Your task to perform on an android device: snooze an email in the gmail app Image 0: 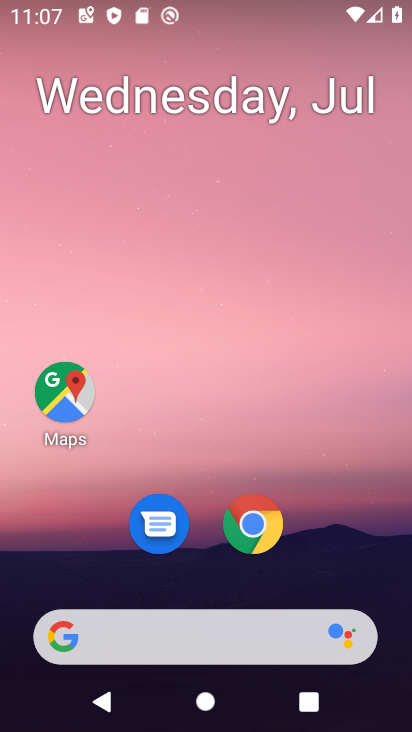
Step 0: press home button
Your task to perform on an android device: snooze an email in the gmail app Image 1: 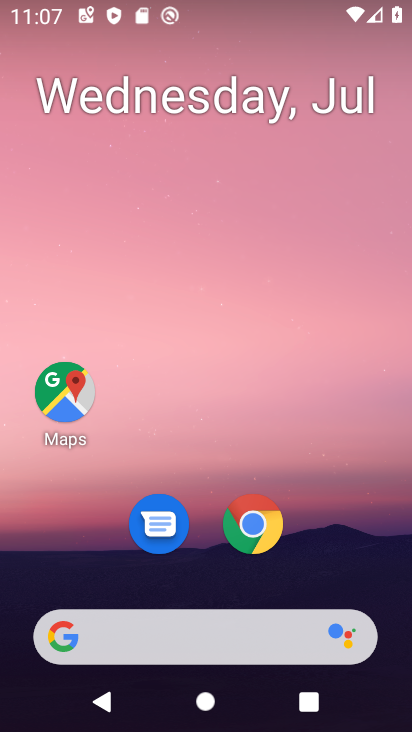
Step 1: drag from (241, 570) to (328, 136)
Your task to perform on an android device: snooze an email in the gmail app Image 2: 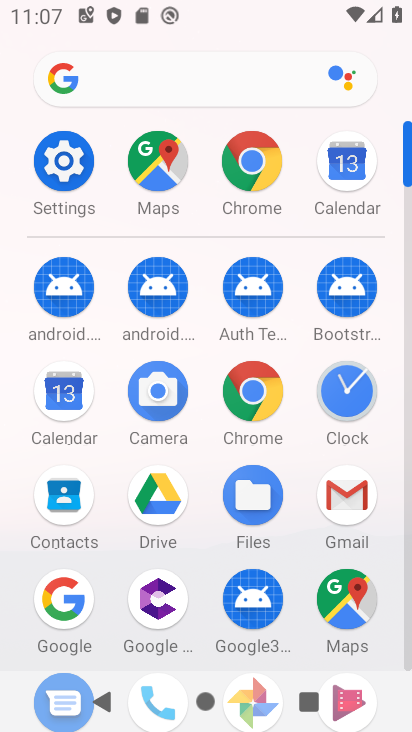
Step 2: click (347, 496)
Your task to perform on an android device: snooze an email in the gmail app Image 3: 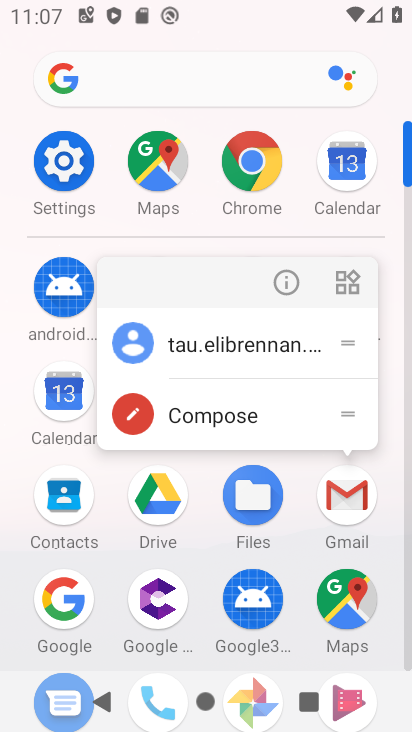
Step 3: click (347, 497)
Your task to perform on an android device: snooze an email in the gmail app Image 4: 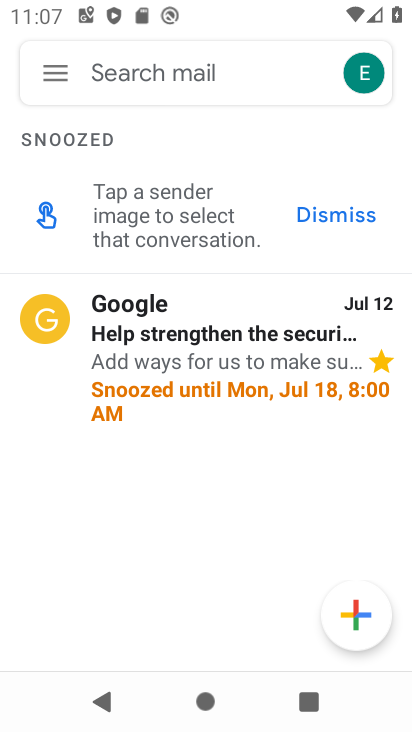
Step 4: click (49, 70)
Your task to perform on an android device: snooze an email in the gmail app Image 5: 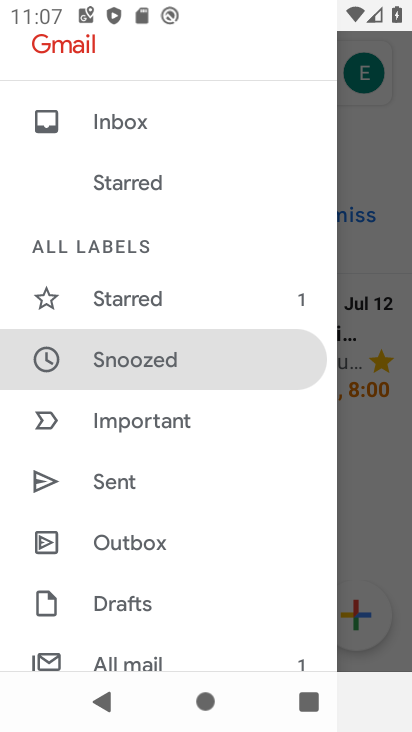
Step 5: click (158, 656)
Your task to perform on an android device: snooze an email in the gmail app Image 6: 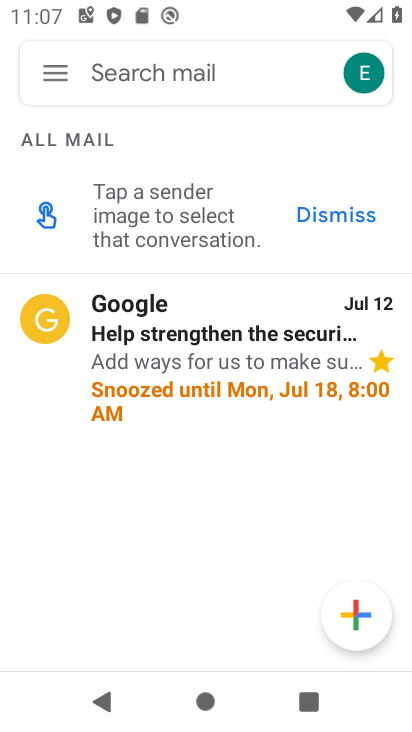
Step 6: click (49, 319)
Your task to perform on an android device: snooze an email in the gmail app Image 7: 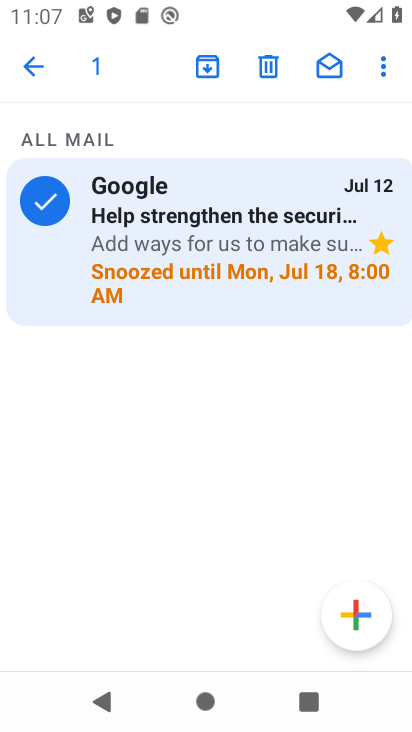
Step 7: click (384, 68)
Your task to perform on an android device: snooze an email in the gmail app Image 8: 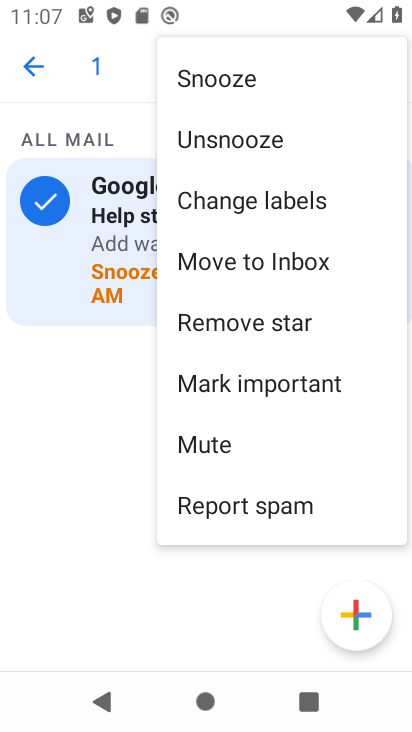
Step 8: click (238, 79)
Your task to perform on an android device: snooze an email in the gmail app Image 9: 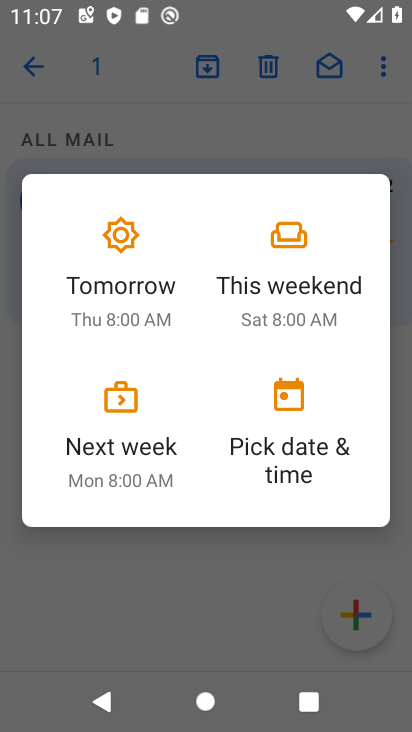
Step 9: click (126, 308)
Your task to perform on an android device: snooze an email in the gmail app Image 10: 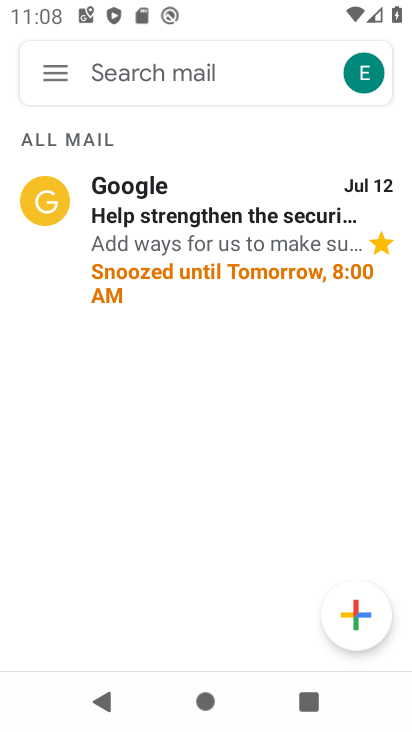
Step 10: task complete